Your task to perform on an android device: turn on priority inbox in the gmail app Image 0: 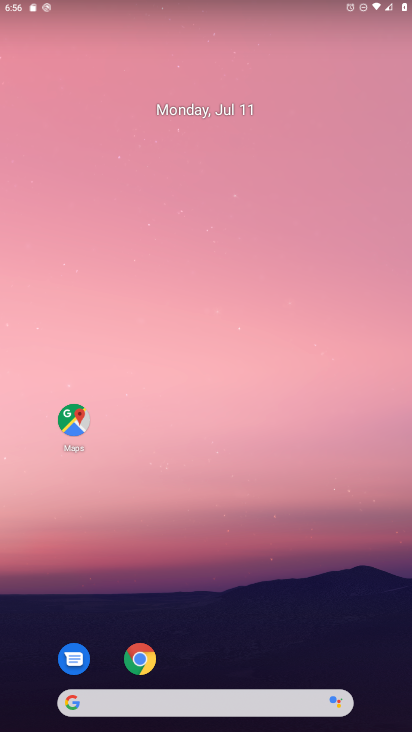
Step 0: drag from (334, 641) to (338, 165)
Your task to perform on an android device: turn on priority inbox in the gmail app Image 1: 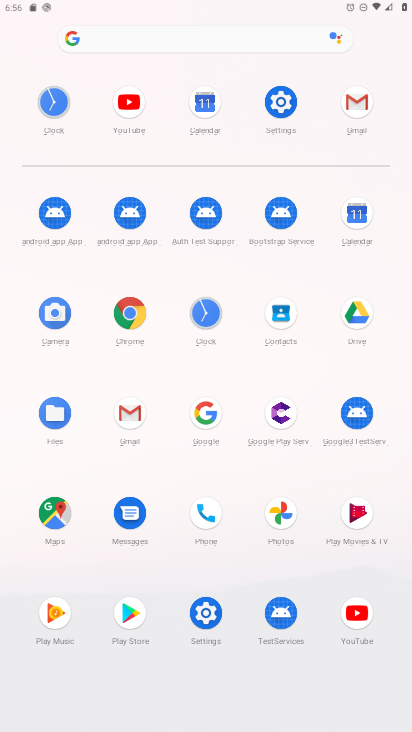
Step 1: click (129, 411)
Your task to perform on an android device: turn on priority inbox in the gmail app Image 2: 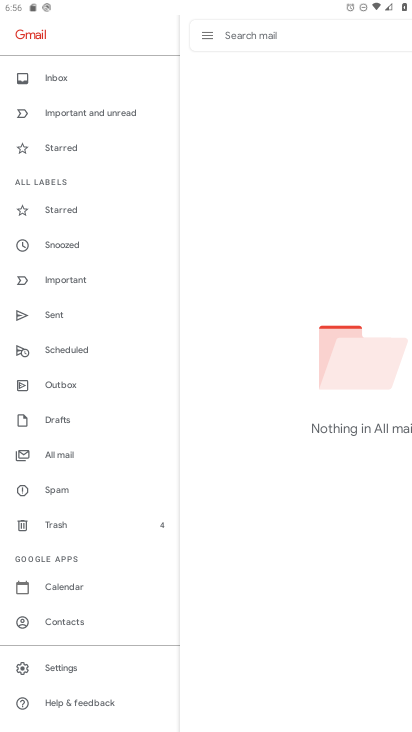
Step 2: click (54, 664)
Your task to perform on an android device: turn on priority inbox in the gmail app Image 3: 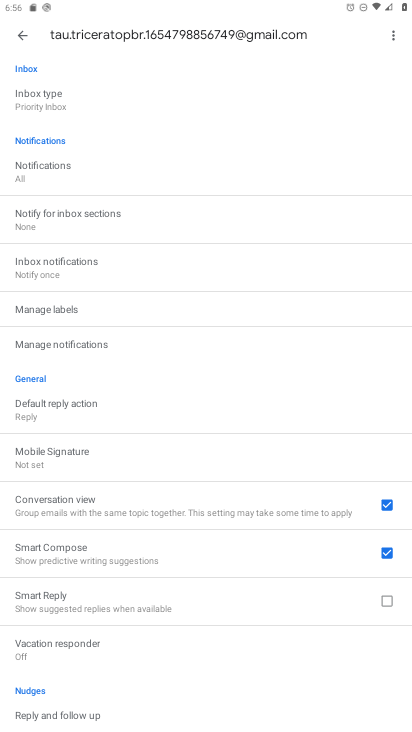
Step 3: click (42, 97)
Your task to perform on an android device: turn on priority inbox in the gmail app Image 4: 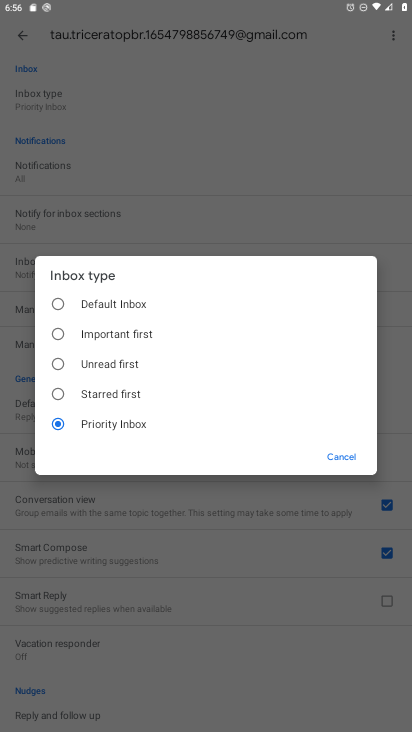
Step 4: task complete